Your task to perform on an android device: toggle javascript in the chrome app Image 0: 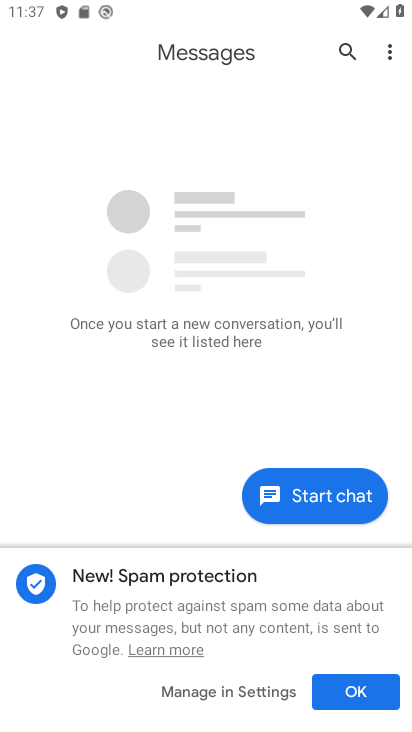
Step 0: press home button
Your task to perform on an android device: toggle javascript in the chrome app Image 1: 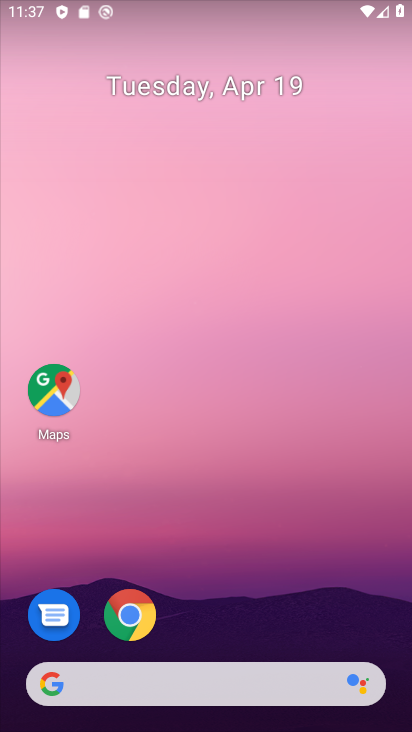
Step 1: click (126, 598)
Your task to perform on an android device: toggle javascript in the chrome app Image 2: 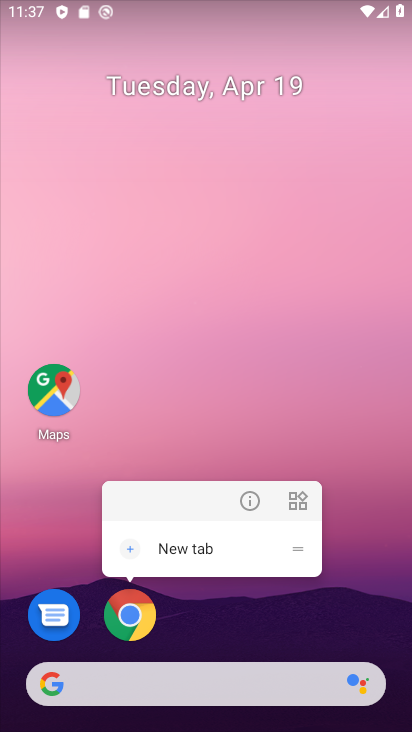
Step 2: click (128, 601)
Your task to perform on an android device: toggle javascript in the chrome app Image 3: 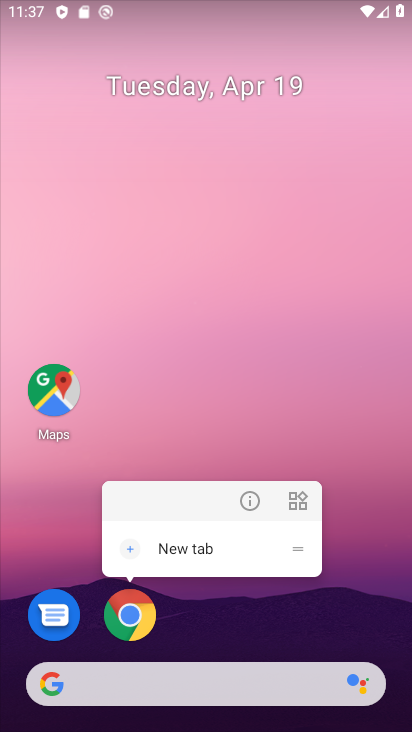
Step 3: click (128, 601)
Your task to perform on an android device: toggle javascript in the chrome app Image 4: 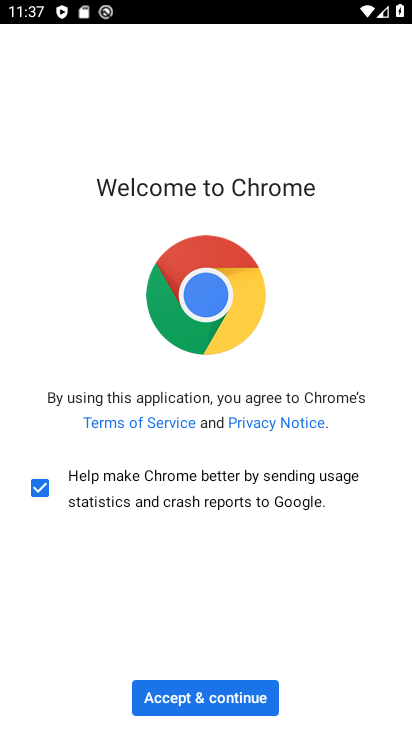
Step 4: click (198, 689)
Your task to perform on an android device: toggle javascript in the chrome app Image 5: 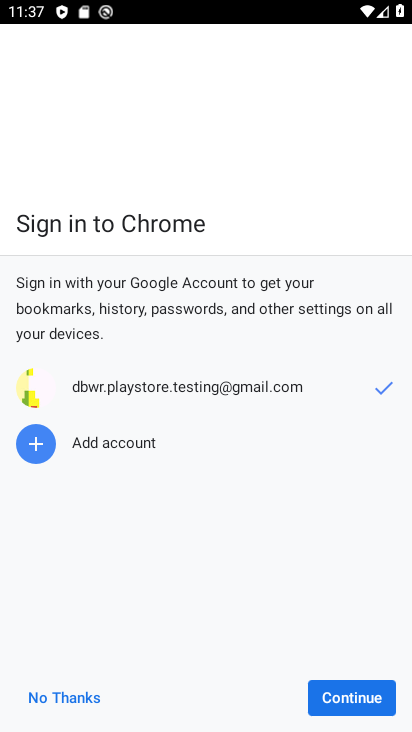
Step 5: click (364, 697)
Your task to perform on an android device: toggle javascript in the chrome app Image 6: 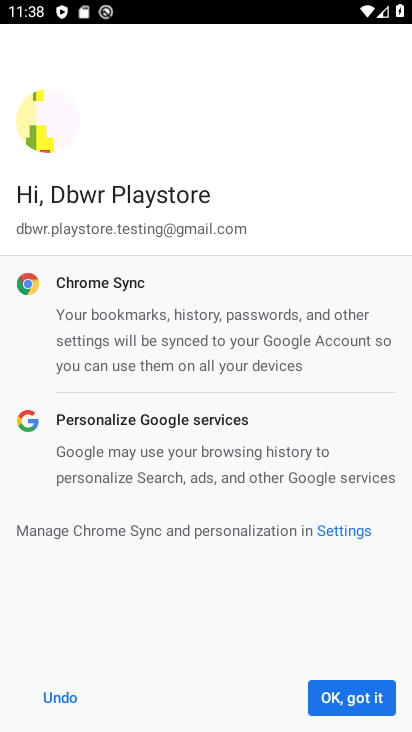
Step 6: click (339, 695)
Your task to perform on an android device: toggle javascript in the chrome app Image 7: 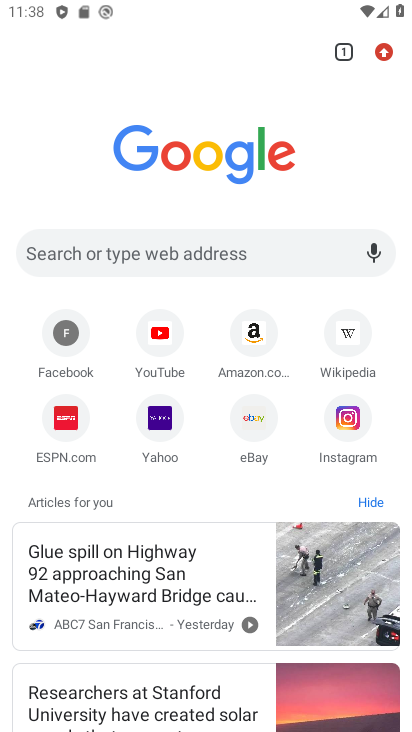
Step 7: click (379, 48)
Your task to perform on an android device: toggle javascript in the chrome app Image 8: 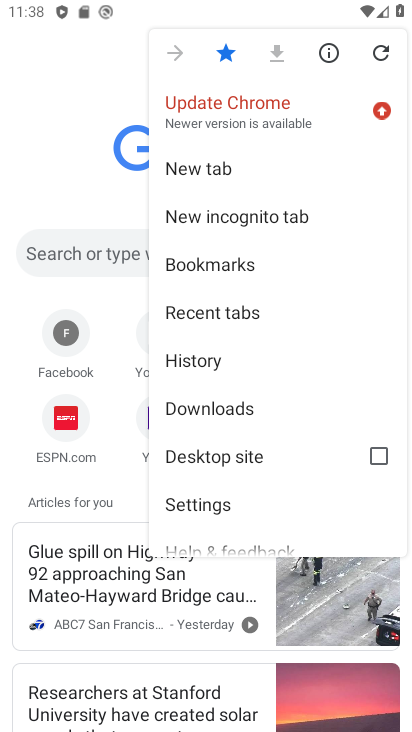
Step 8: click (186, 500)
Your task to perform on an android device: toggle javascript in the chrome app Image 9: 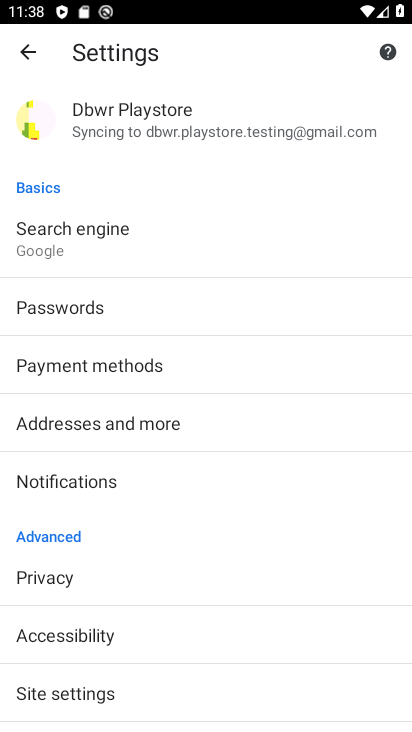
Step 9: click (72, 692)
Your task to perform on an android device: toggle javascript in the chrome app Image 10: 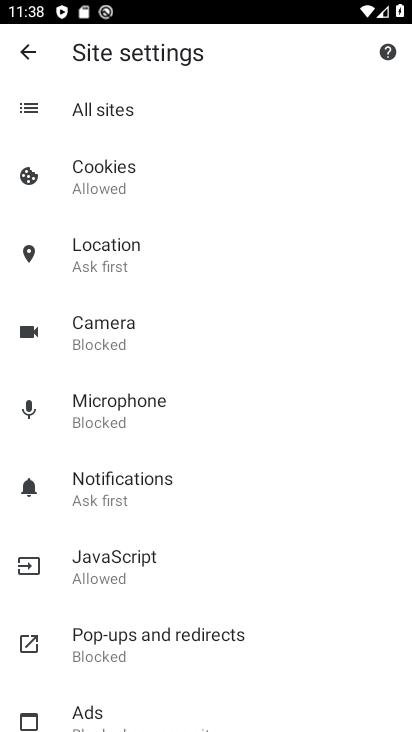
Step 10: click (101, 563)
Your task to perform on an android device: toggle javascript in the chrome app Image 11: 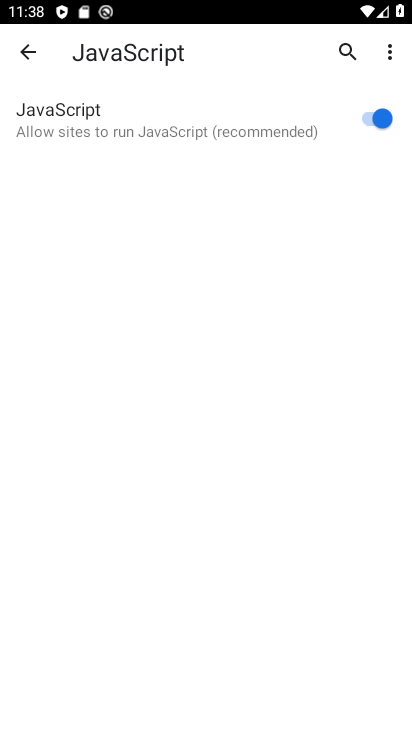
Step 11: click (361, 117)
Your task to perform on an android device: toggle javascript in the chrome app Image 12: 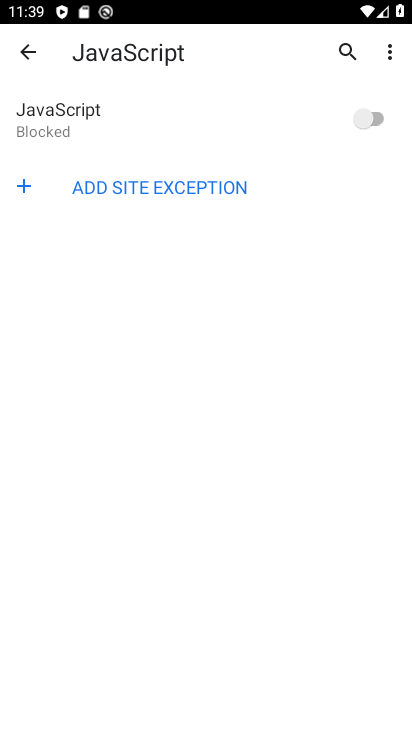
Step 12: task complete